Your task to perform on an android device: set default search engine in the chrome app Image 0: 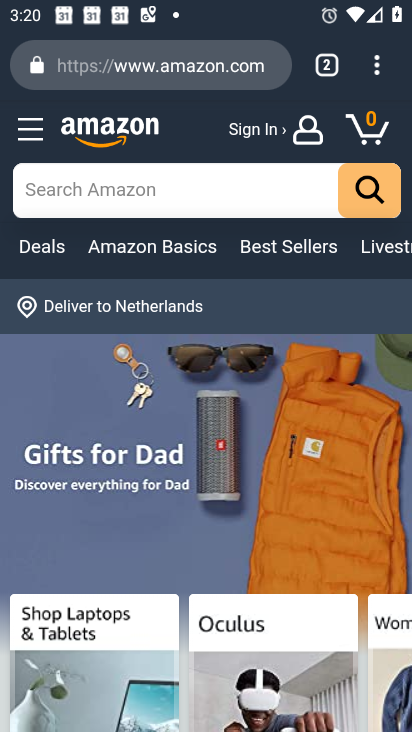
Step 0: click (383, 78)
Your task to perform on an android device: set default search engine in the chrome app Image 1: 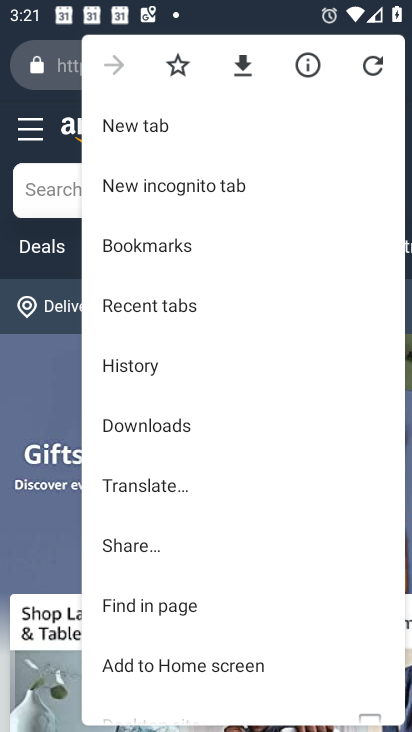
Step 1: drag from (140, 592) to (216, 286)
Your task to perform on an android device: set default search engine in the chrome app Image 2: 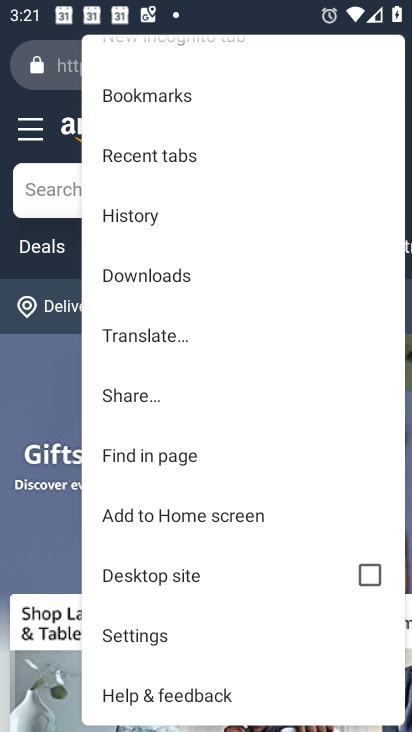
Step 2: click (141, 643)
Your task to perform on an android device: set default search engine in the chrome app Image 3: 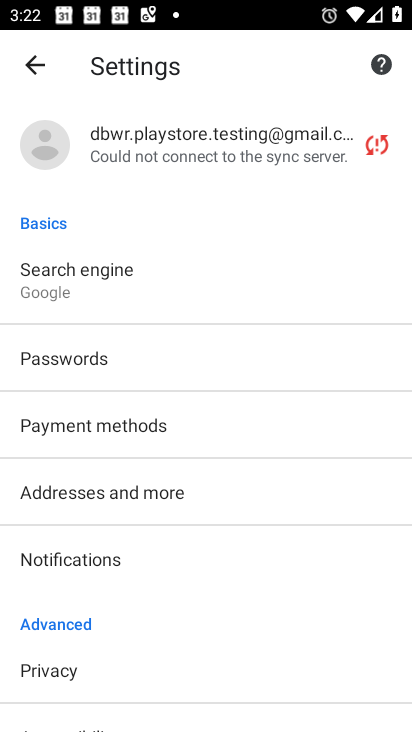
Step 3: click (135, 279)
Your task to perform on an android device: set default search engine in the chrome app Image 4: 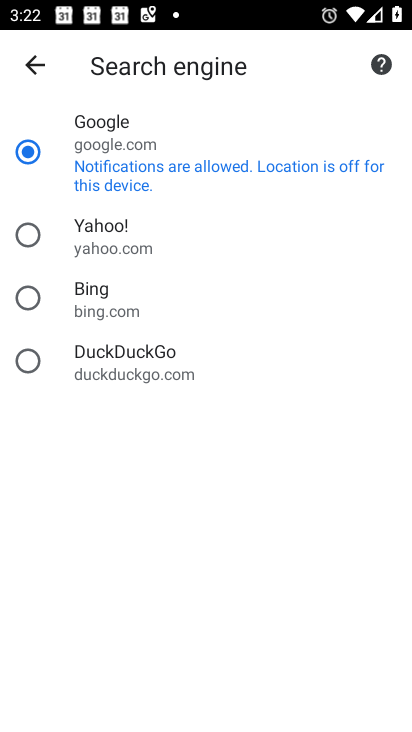
Step 4: task complete